Your task to perform on an android device: stop showing notifications on the lock screen Image 0: 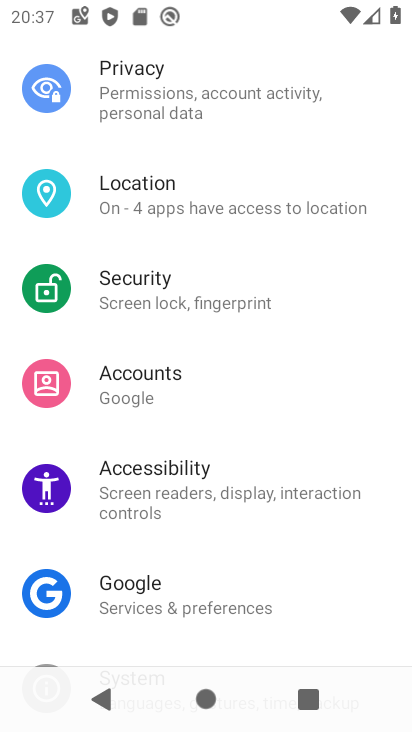
Step 0: drag from (286, 529) to (224, 109)
Your task to perform on an android device: stop showing notifications on the lock screen Image 1: 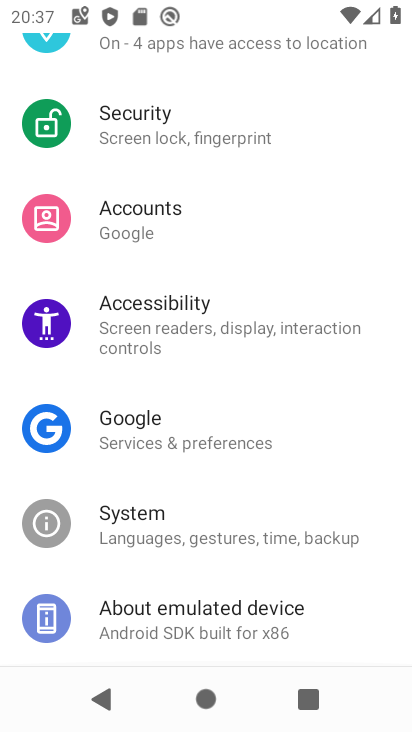
Step 1: drag from (218, 117) to (188, 730)
Your task to perform on an android device: stop showing notifications on the lock screen Image 2: 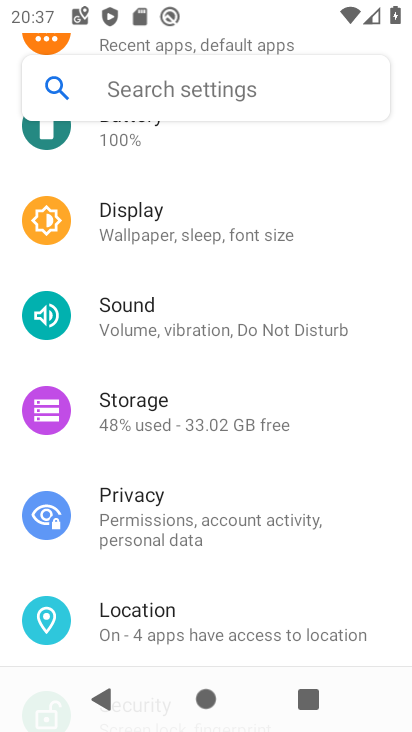
Step 2: drag from (182, 227) to (196, 729)
Your task to perform on an android device: stop showing notifications on the lock screen Image 3: 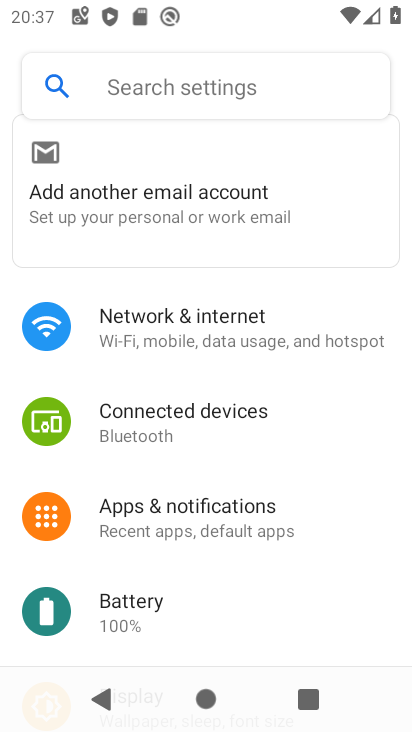
Step 3: click (204, 507)
Your task to perform on an android device: stop showing notifications on the lock screen Image 4: 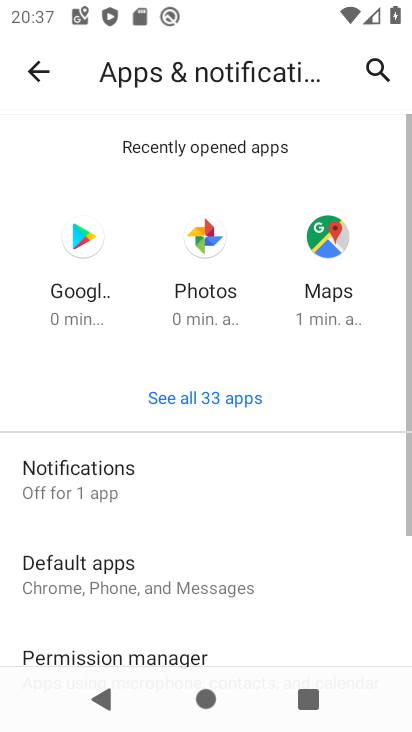
Step 4: click (108, 463)
Your task to perform on an android device: stop showing notifications on the lock screen Image 5: 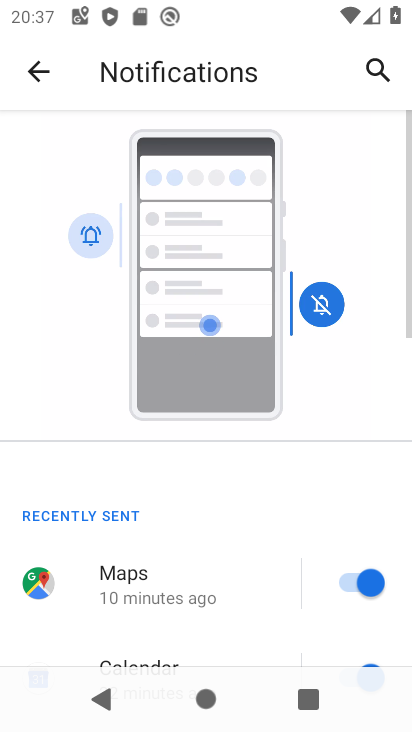
Step 5: drag from (208, 566) to (218, 16)
Your task to perform on an android device: stop showing notifications on the lock screen Image 6: 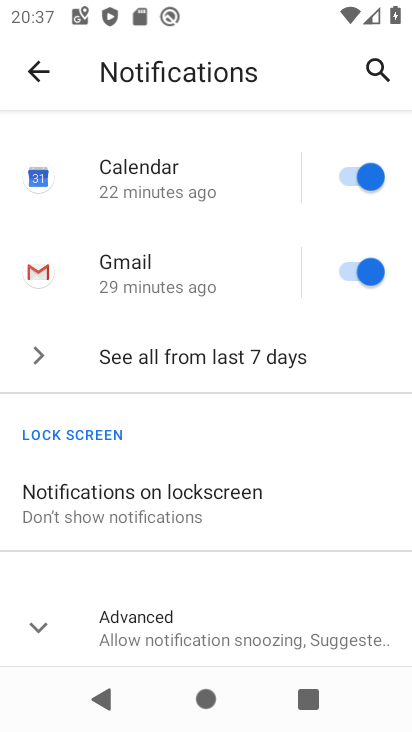
Step 6: click (162, 543)
Your task to perform on an android device: stop showing notifications on the lock screen Image 7: 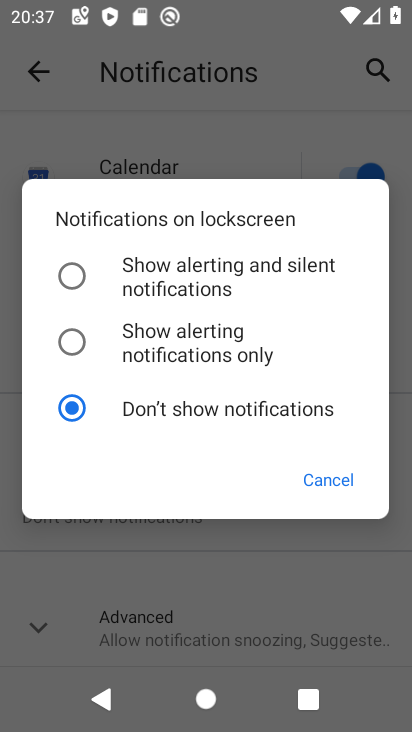
Step 7: click (197, 414)
Your task to perform on an android device: stop showing notifications on the lock screen Image 8: 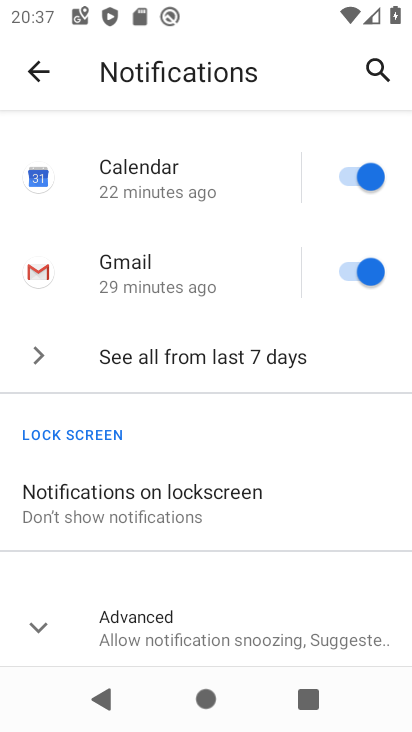
Step 8: task complete